Your task to perform on an android device: Open settings Image 0: 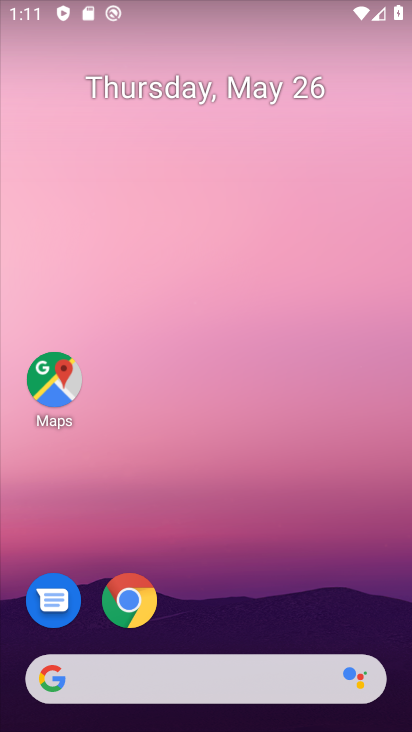
Step 0: drag from (275, 592) to (288, 164)
Your task to perform on an android device: Open settings Image 1: 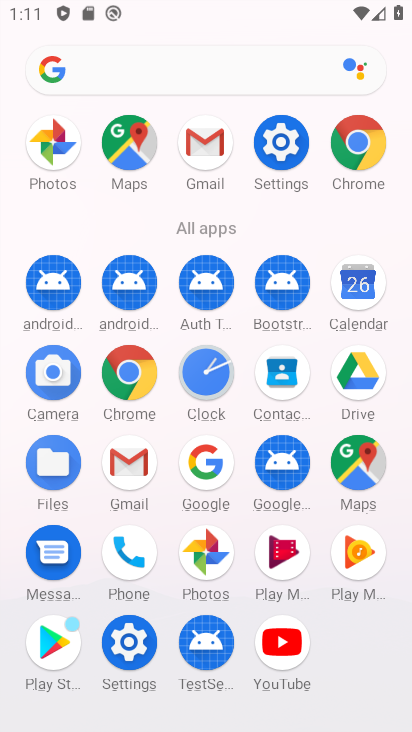
Step 1: click (281, 142)
Your task to perform on an android device: Open settings Image 2: 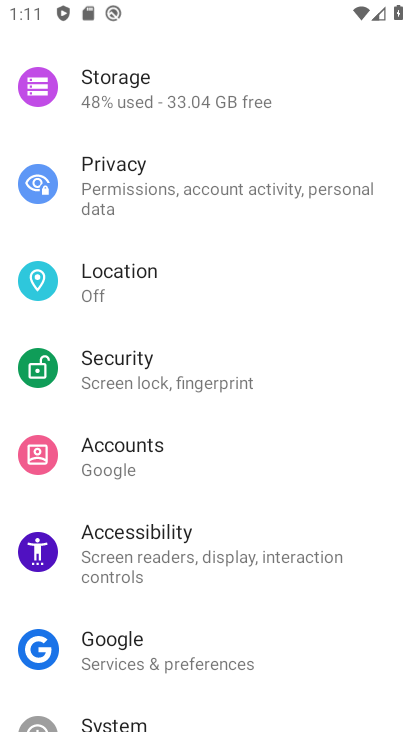
Step 2: task complete